Your task to perform on an android device: When is my next meeting? Image 0: 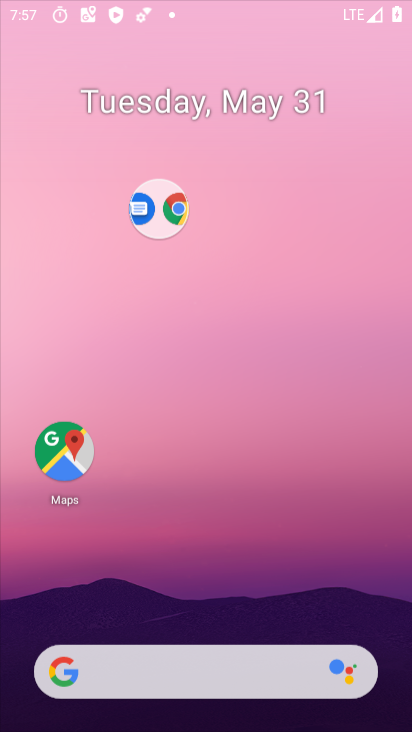
Step 0: click (204, 207)
Your task to perform on an android device: When is my next meeting? Image 1: 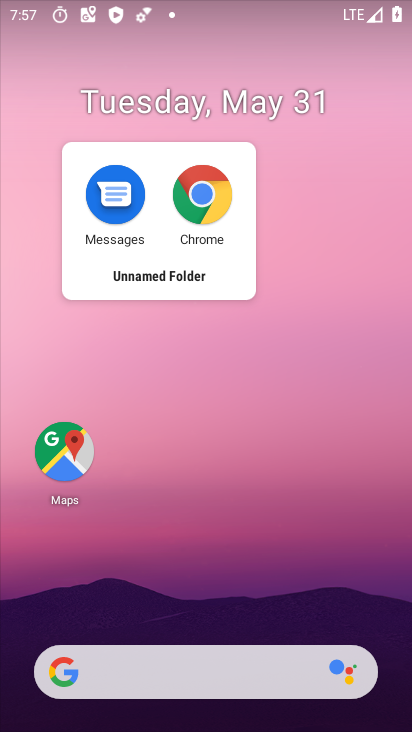
Step 1: click (151, 282)
Your task to perform on an android device: When is my next meeting? Image 2: 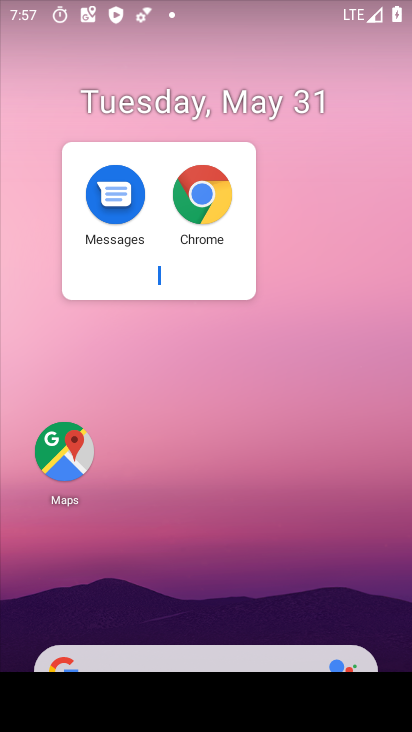
Step 2: click (145, 350)
Your task to perform on an android device: When is my next meeting? Image 3: 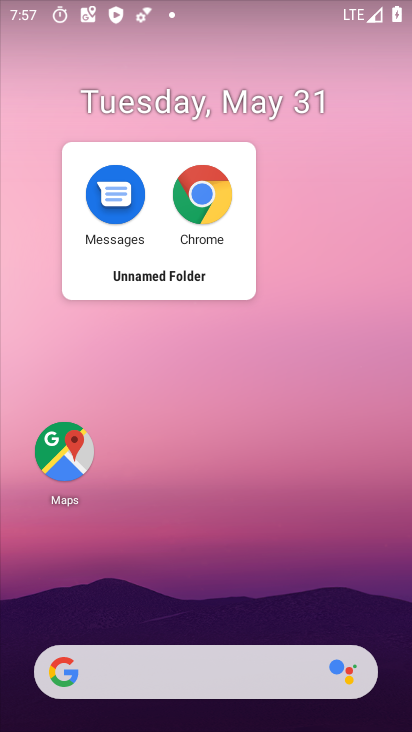
Step 3: drag from (209, 209) to (281, 327)
Your task to perform on an android device: When is my next meeting? Image 4: 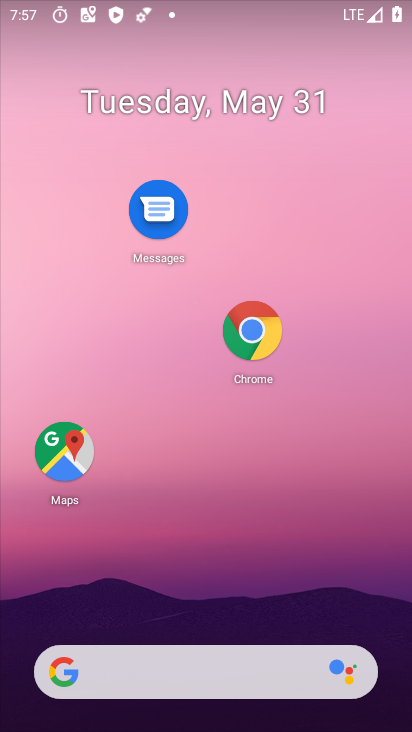
Step 4: drag from (163, 584) to (261, 111)
Your task to perform on an android device: When is my next meeting? Image 5: 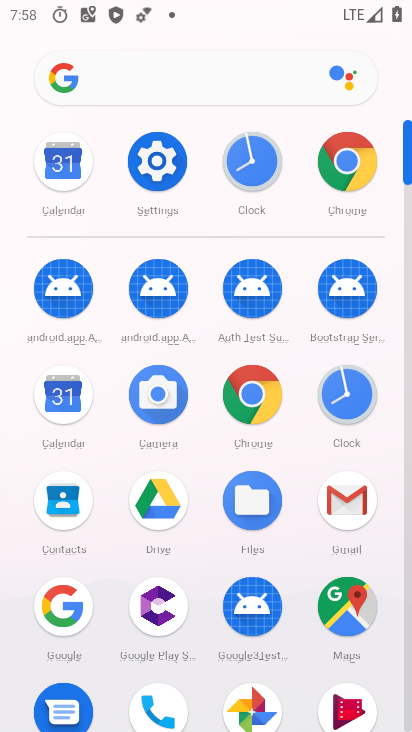
Step 5: click (59, 422)
Your task to perform on an android device: When is my next meeting? Image 6: 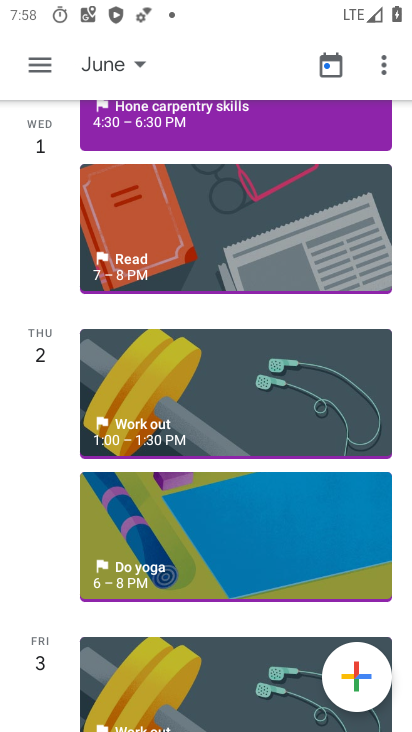
Step 6: task complete